Your task to perform on an android device: Turn off the flashlight Image 0: 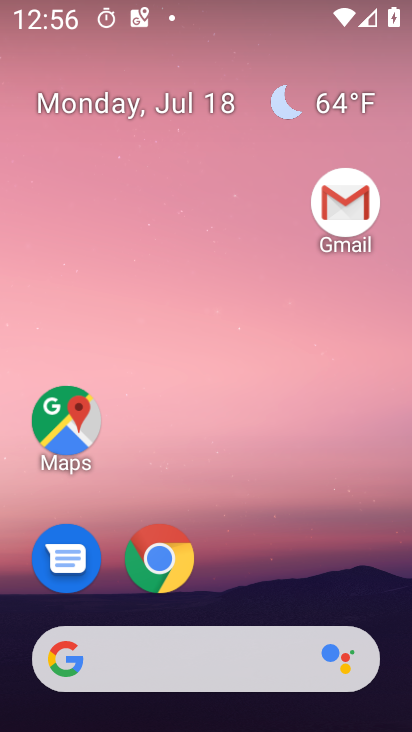
Step 0: drag from (227, 0) to (235, 415)
Your task to perform on an android device: Turn off the flashlight Image 1: 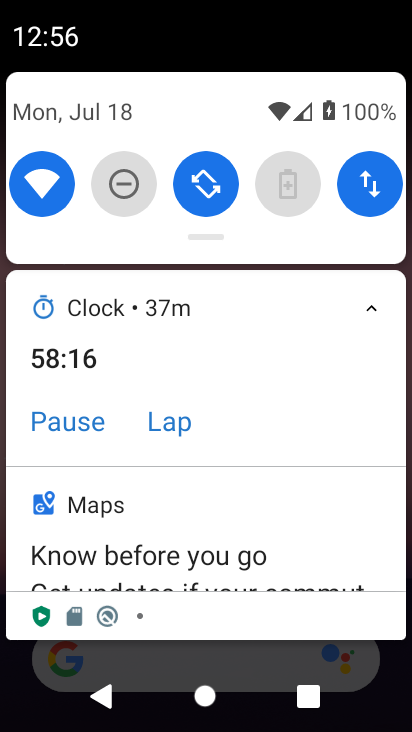
Step 1: drag from (242, 130) to (254, 365)
Your task to perform on an android device: Turn off the flashlight Image 2: 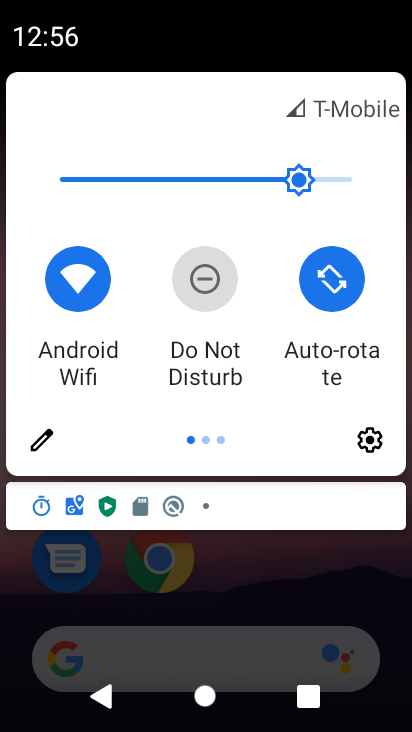
Step 2: click (33, 447)
Your task to perform on an android device: Turn off the flashlight Image 3: 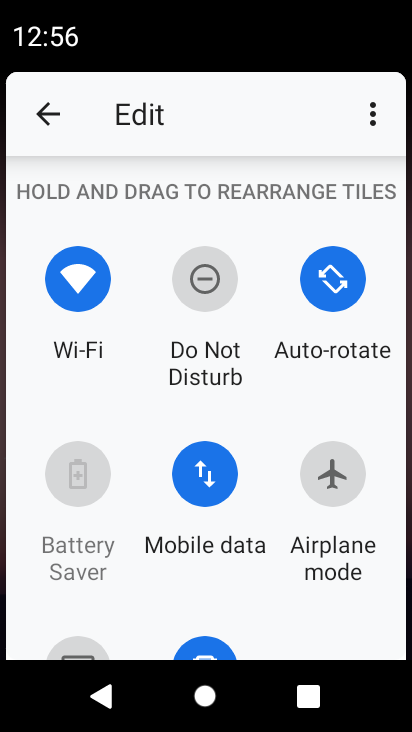
Step 3: drag from (253, 567) to (284, 459)
Your task to perform on an android device: Turn off the flashlight Image 4: 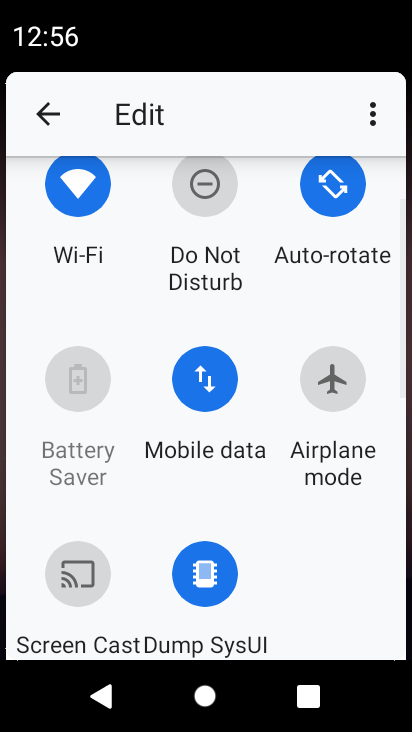
Step 4: drag from (276, 585) to (293, 468)
Your task to perform on an android device: Turn off the flashlight Image 5: 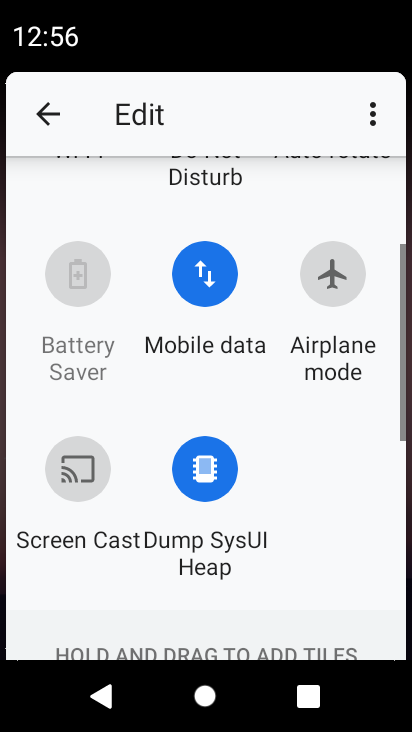
Step 5: drag from (310, 575) to (311, 470)
Your task to perform on an android device: Turn off the flashlight Image 6: 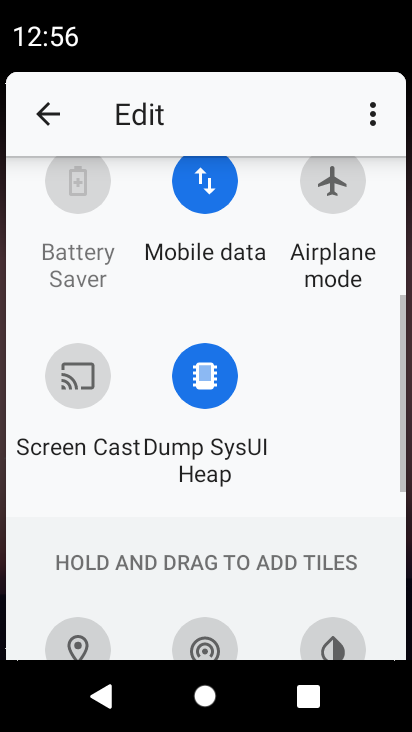
Step 6: drag from (314, 566) to (319, 471)
Your task to perform on an android device: Turn off the flashlight Image 7: 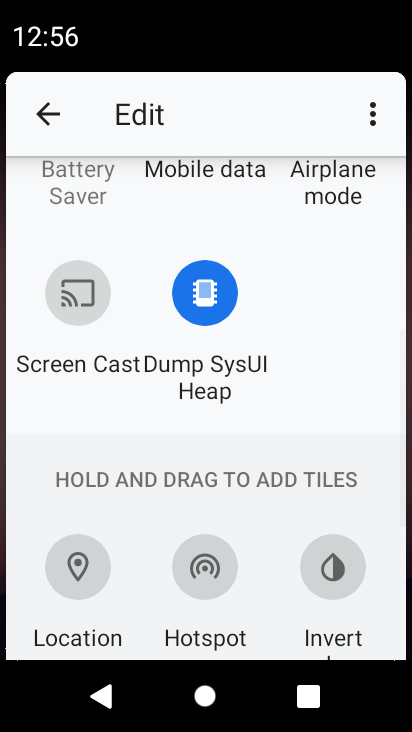
Step 7: drag from (329, 571) to (332, 425)
Your task to perform on an android device: Turn off the flashlight Image 8: 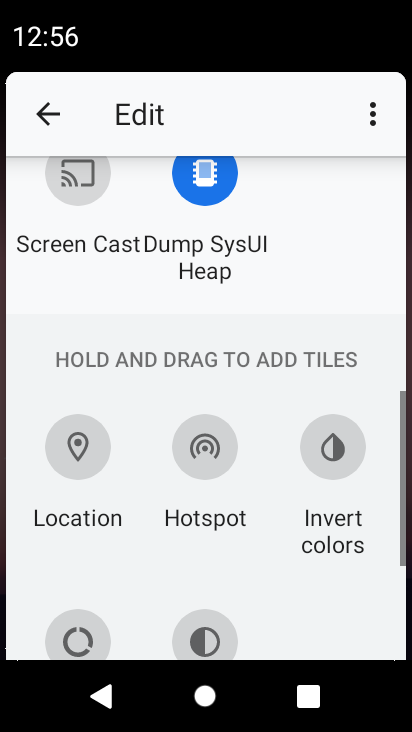
Step 8: drag from (298, 531) to (300, 461)
Your task to perform on an android device: Turn off the flashlight Image 9: 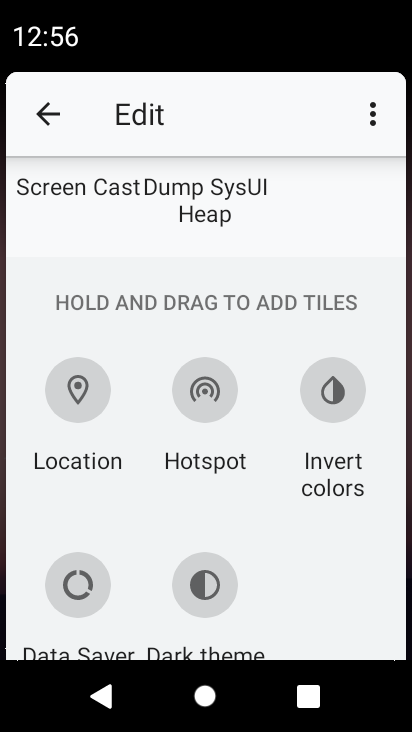
Step 9: drag from (318, 319) to (316, 388)
Your task to perform on an android device: Turn off the flashlight Image 10: 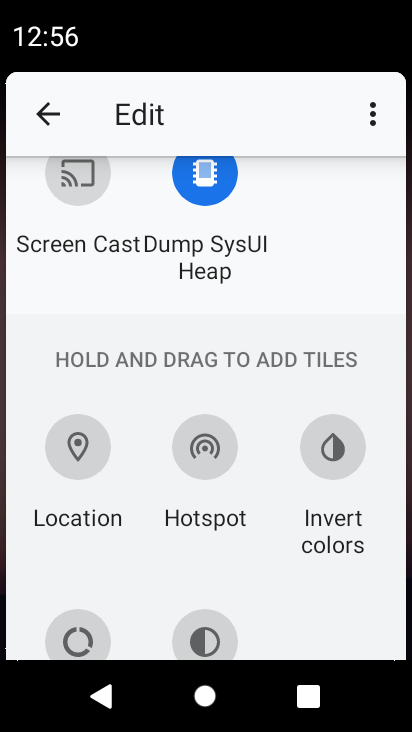
Step 10: drag from (326, 316) to (321, 394)
Your task to perform on an android device: Turn off the flashlight Image 11: 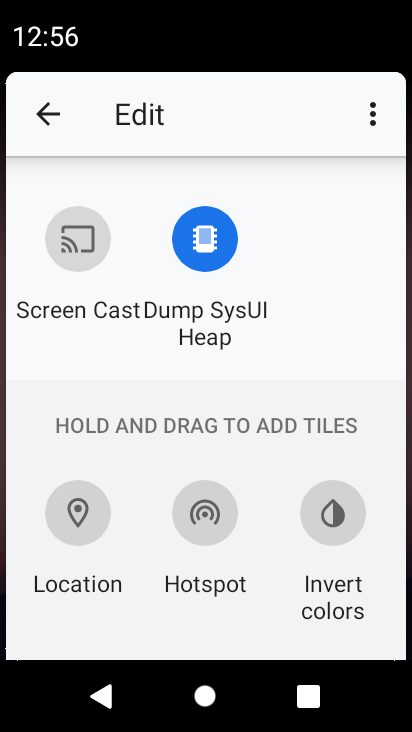
Step 11: click (323, 359)
Your task to perform on an android device: Turn off the flashlight Image 12: 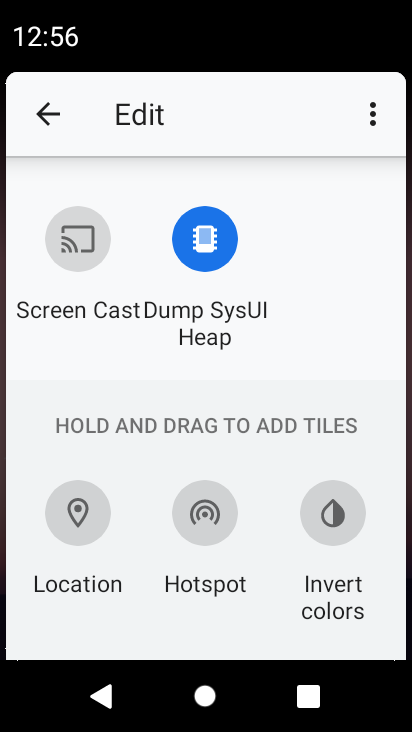
Step 12: task complete